Your task to perform on an android device: turn on location history Image 0: 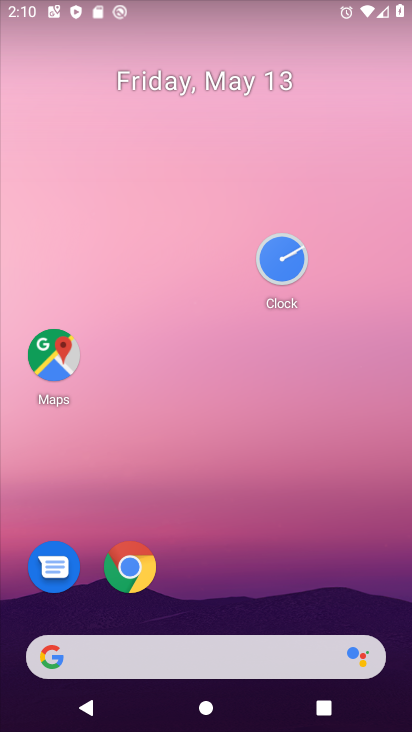
Step 0: drag from (281, 595) to (277, 368)
Your task to perform on an android device: turn on location history Image 1: 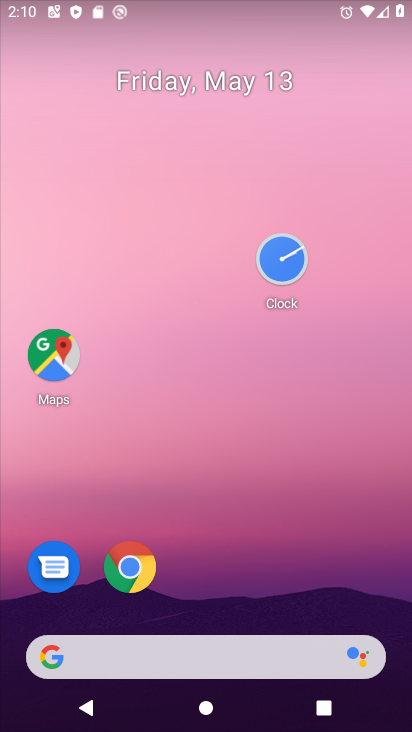
Step 1: drag from (191, 607) to (206, 102)
Your task to perform on an android device: turn on location history Image 2: 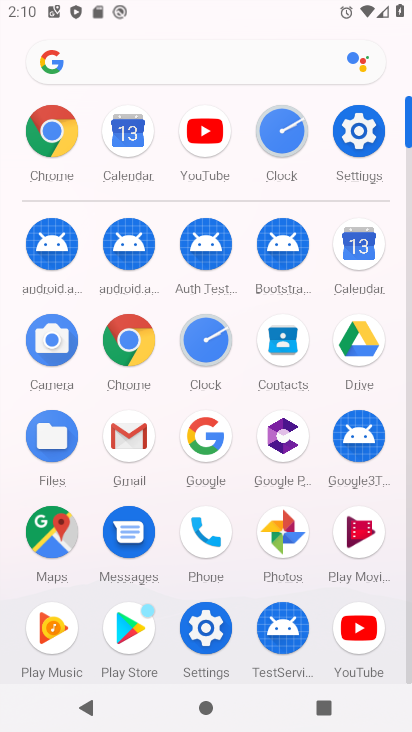
Step 2: click (368, 119)
Your task to perform on an android device: turn on location history Image 3: 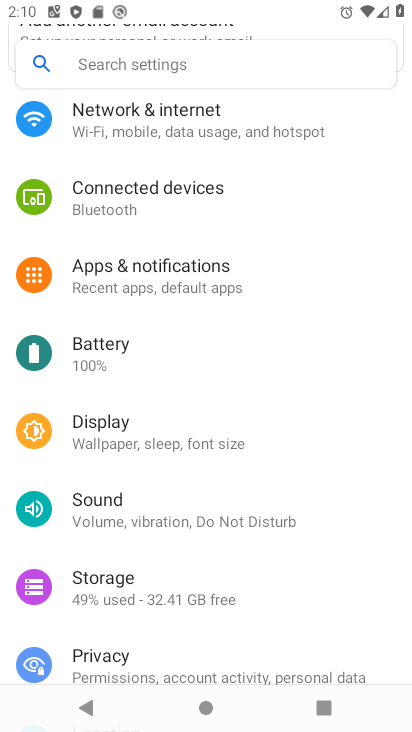
Step 3: drag from (145, 633) to (163, 518)
Your task to perform on an android device: turn on location history Image 4: 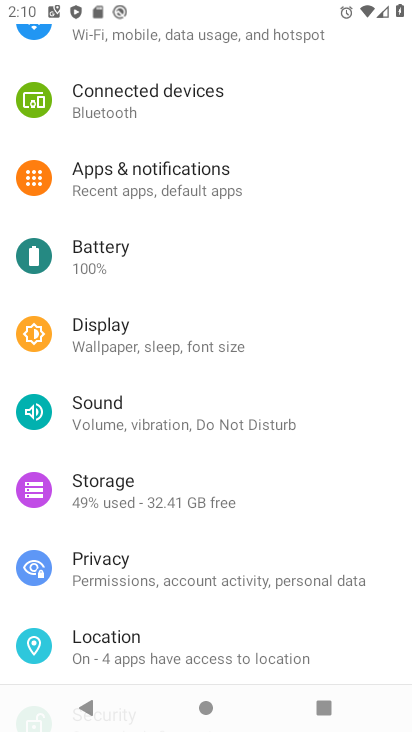
Step 4: click (158, 637)
Your task to perform on an android device: turn on location history Image 5: 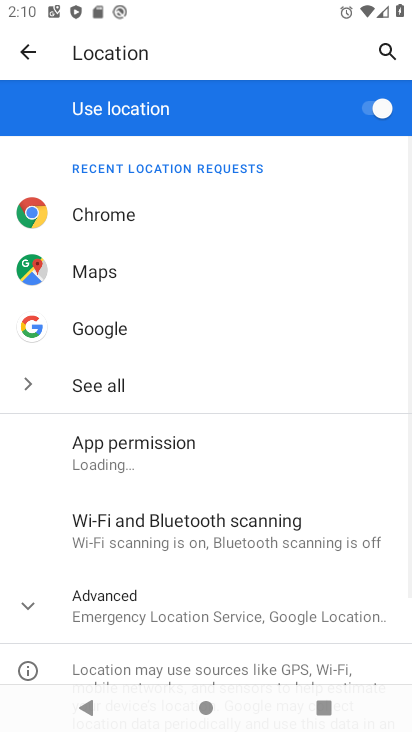
Step 5: click (145, 591)
Your task to perform on an android device: turn on location history Image 6: 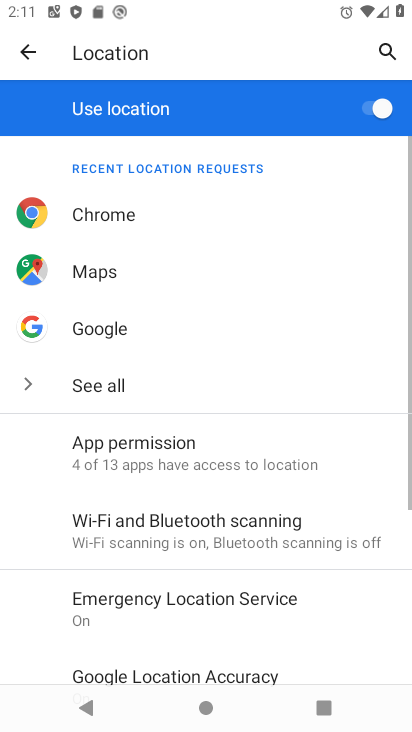
Step 6: drag from (243, 549) to (240, 364)
Your task to perform on an android device: turn on location history Image 7: 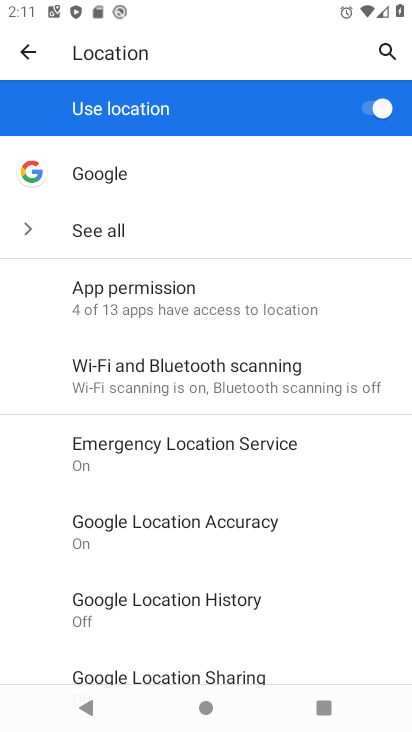
Step 7: click (287, 605)
Your task to perform on an android device: turn on location history Image 8: 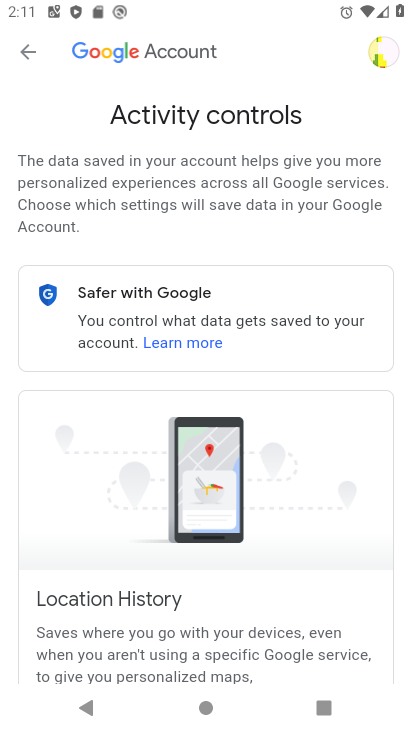
Step 8: drag from (314, 537) to (314, 374)
Your task to perform on an android device: turn on location history Image 9: 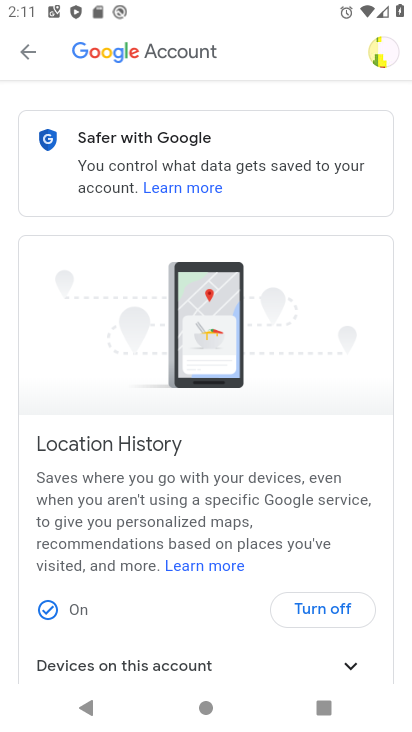
Step 9: click (339, 614)
Your task to perform on an android device: turn on location history Image 10: 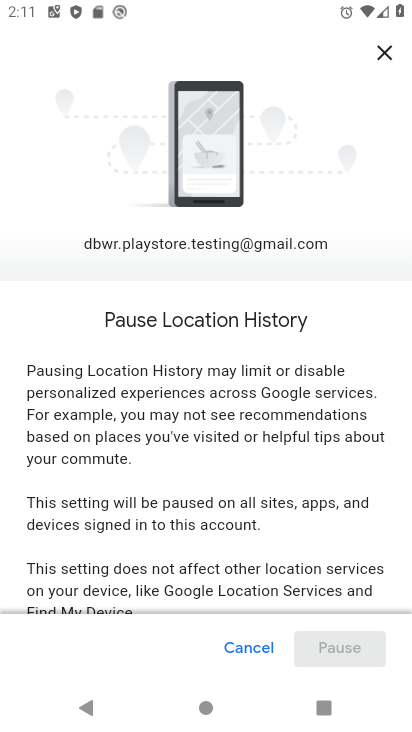
Step 10: click (244, 654)
Your task to perform on an android device: turn on location history Image 11: 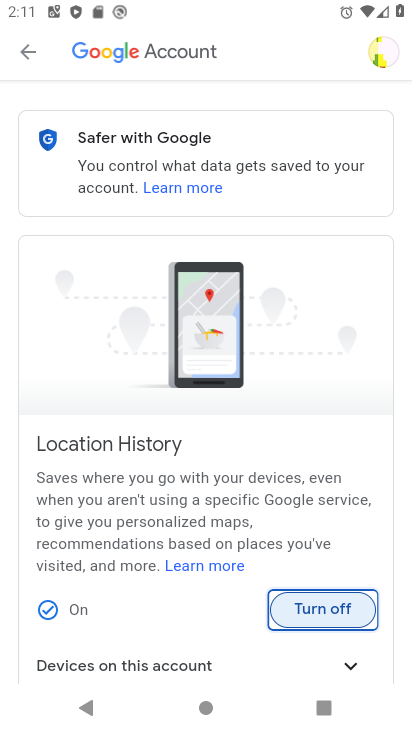
Step 11: click (52, 619)
Your task to perform on an android device: turn on location history Image 12: 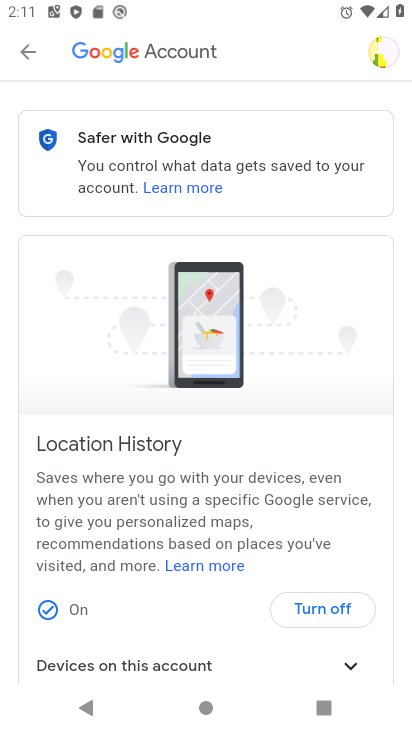
Step 12: click (52, 619)
Your task to perform on an android device: turn on location history Image 13: 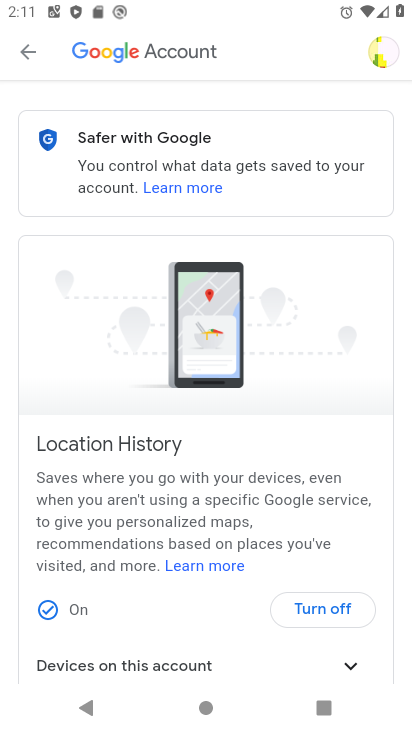
Step 13: task complete